Your task to perform on an android device: Open CNN.com Image 0: 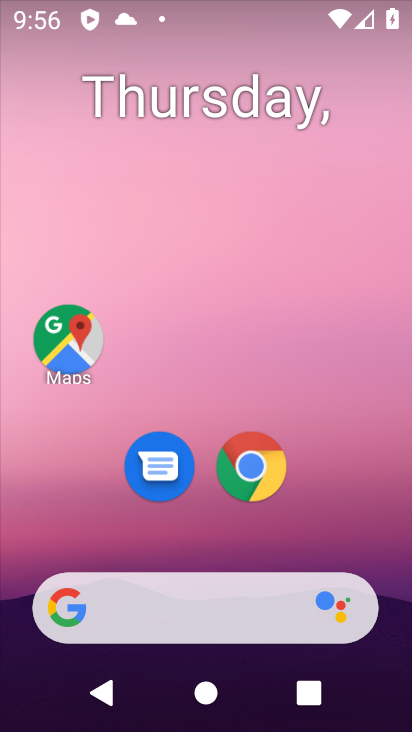
Step 0: drag from (241, 565) to (251, 175)
Your task to perform on an android device: Open CNN.com Image 1: 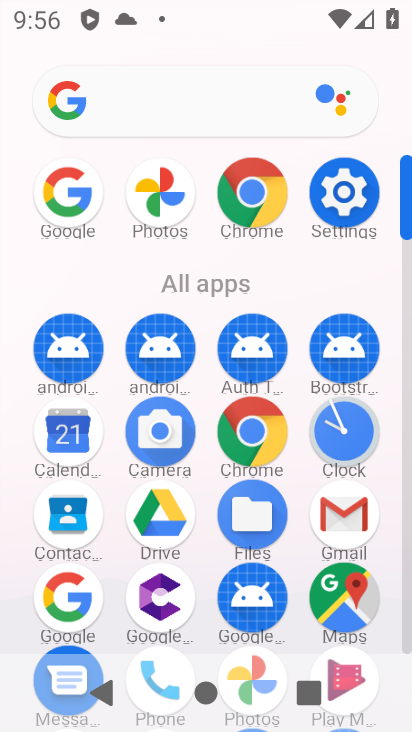
Step 1: click (248, 173)
Your task to perform on an android device: Open CNN.com Image 2: 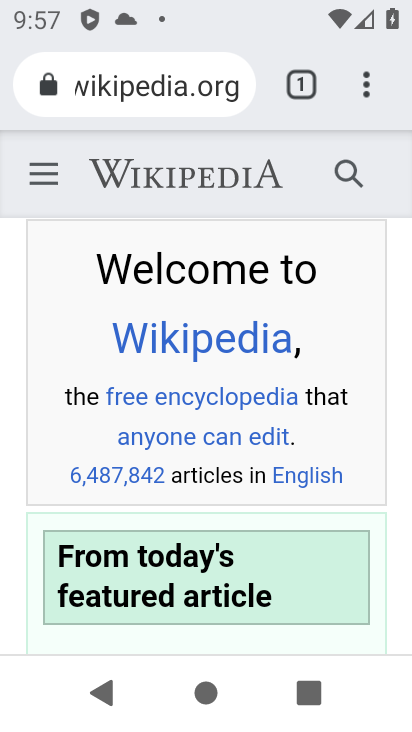
Step 2: click (313, 85)
Your task to perform on an android device: Open CNN.com Image 3: 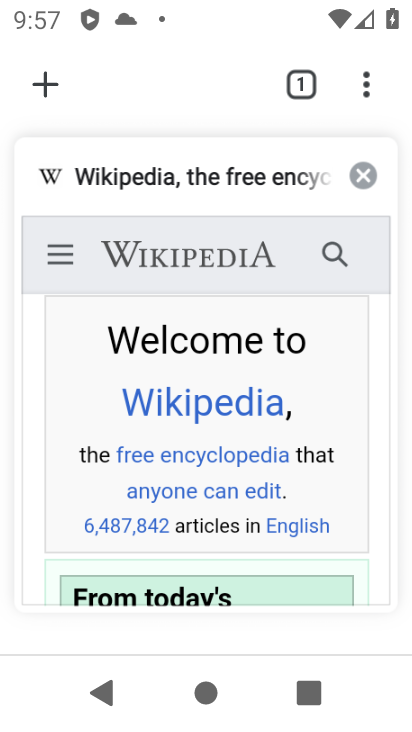
Step 3: click (45, 86)
Your task to perform on an android device: Open CNN.com Image 4: 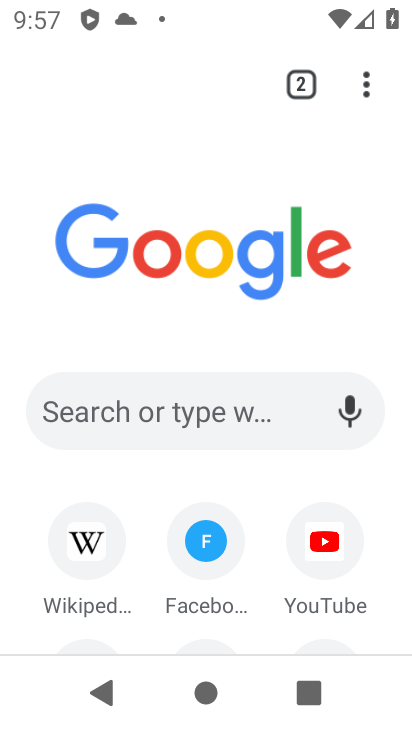
Step 4: click (196, 388)
Your task to perform on an android device: Open CNN.com Image 5: 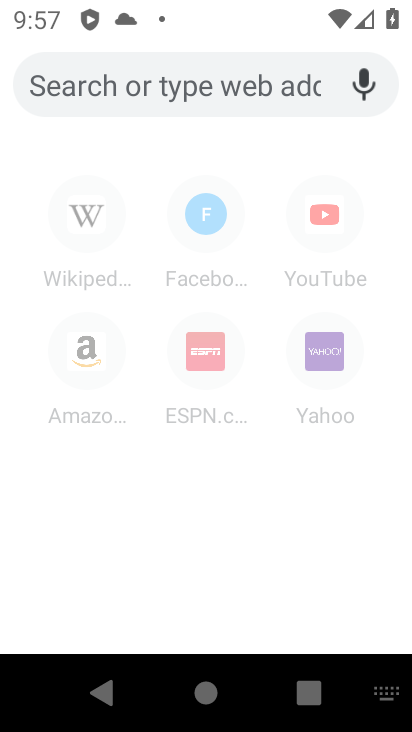
Step 5: type "cnn"
Your task to perform on an android device: Open CNN.com Image 6: 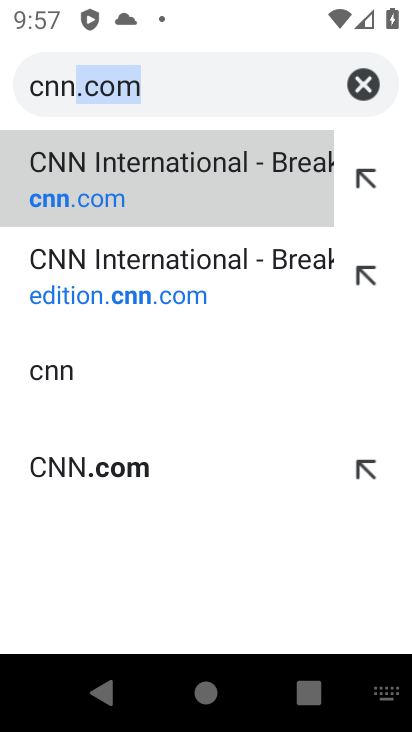
Step 6: click (111, 193)
Your task to perform on an android device: Open CNN.com Image 7: 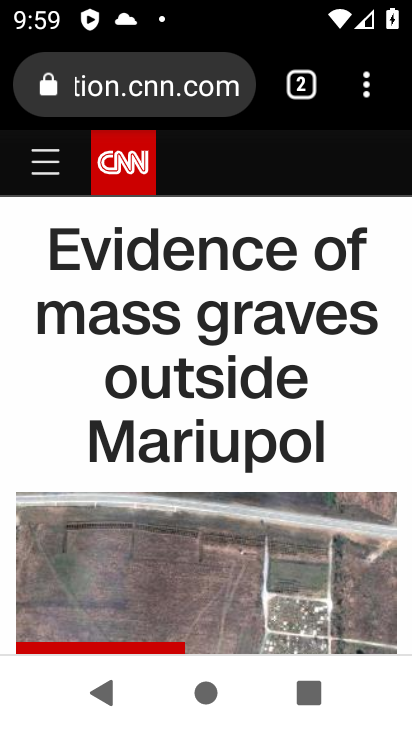
Step 7: task complete